Your task to perform on an android device: Open the map Image 0: 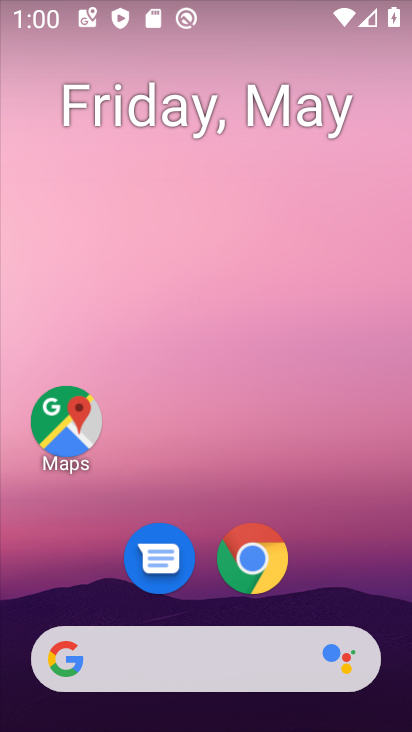
Step 0: click (87, 412)
Your task to perform on an android device: Open the map Image 1: 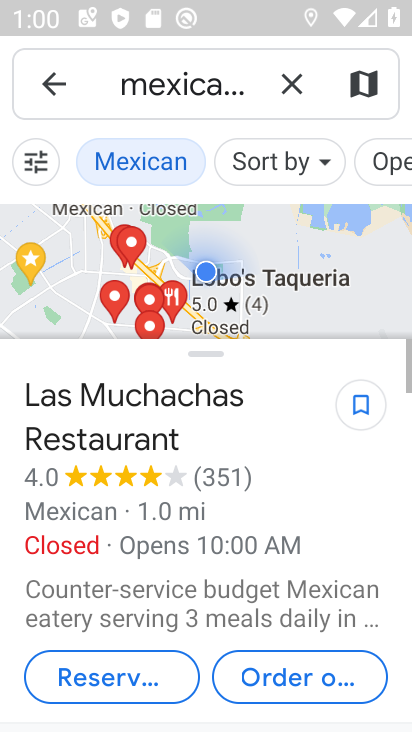
Step 1: task complete